Your task to perform on an android device: delete location history Image 0: 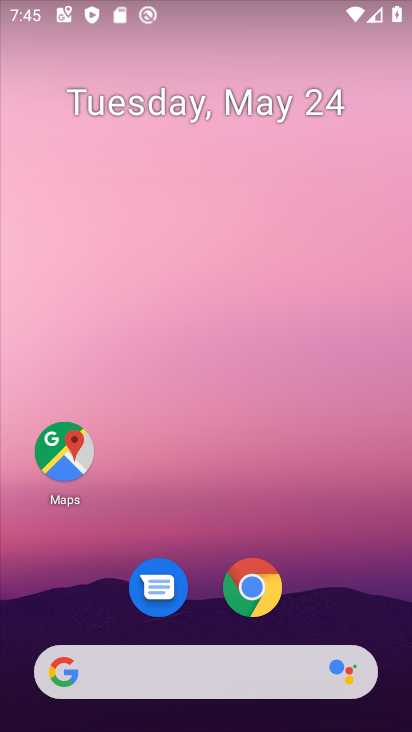
Step 0: drag from (215, 613) to (382, 5)
Your task to perform on an android device: delete location history Image 1: 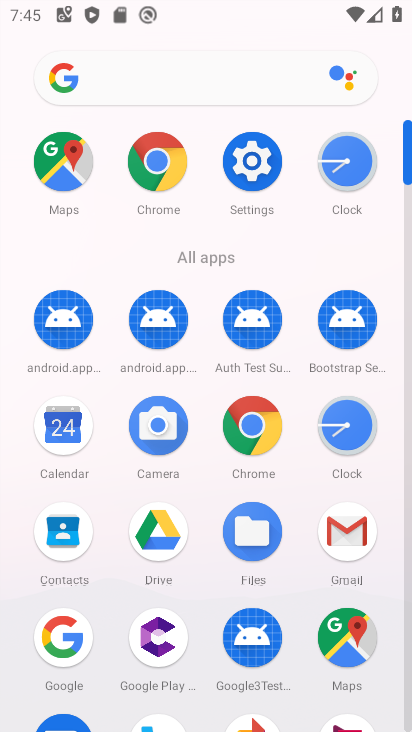
Step 1: click (352, 638)
Your task to perform on an android device: delete location history Image 2: 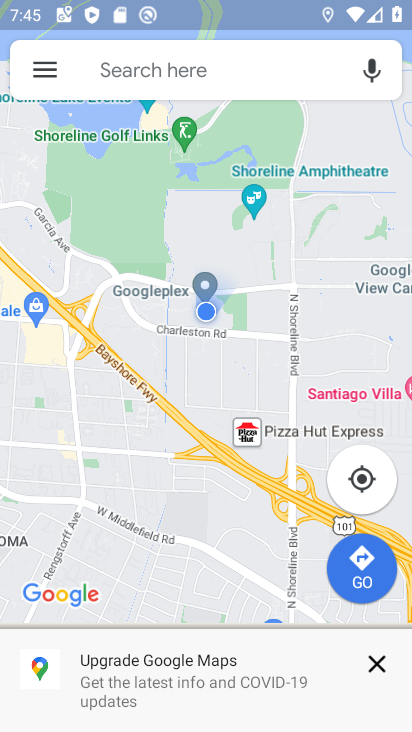
Step 2: click (50, 80)
Your task to perform on an android device: delete location history Image 3: 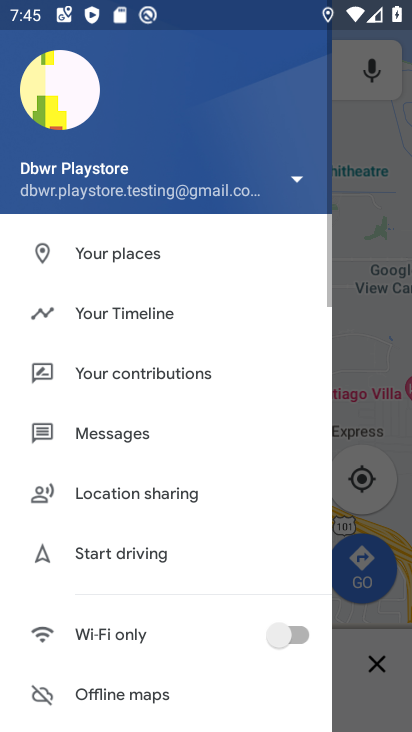
Step 3: click (94, 307)
Your task to perform on an android device: delete location history Image 4: 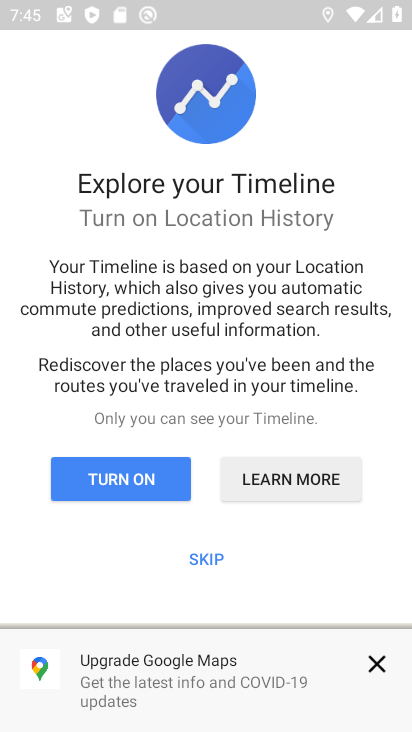
Step 4: click (185, 557)
Your task to perform on an android device: delete location history Image 5: 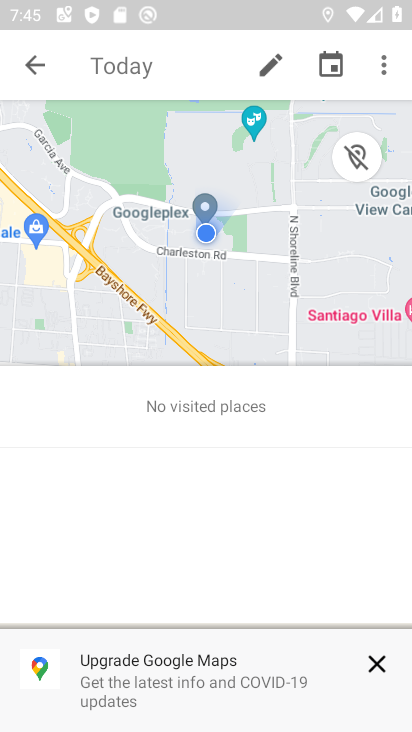
Step 5: click (368, 66)
Your task to perform on an android device: delete location history Image 6: 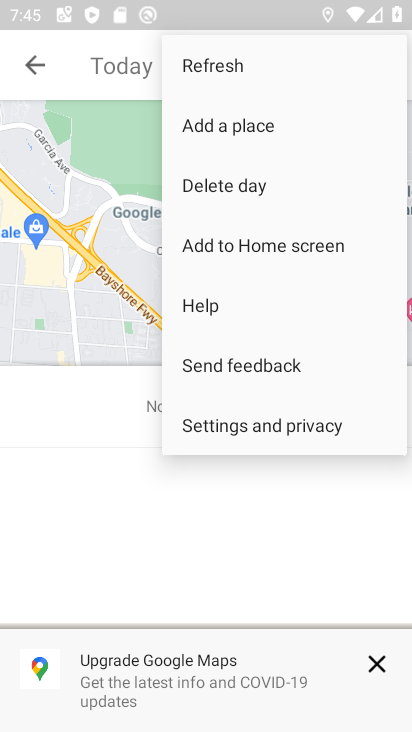
Step 6: click (231, 430)
Your task to perform on an android device: delete location history Image 7: 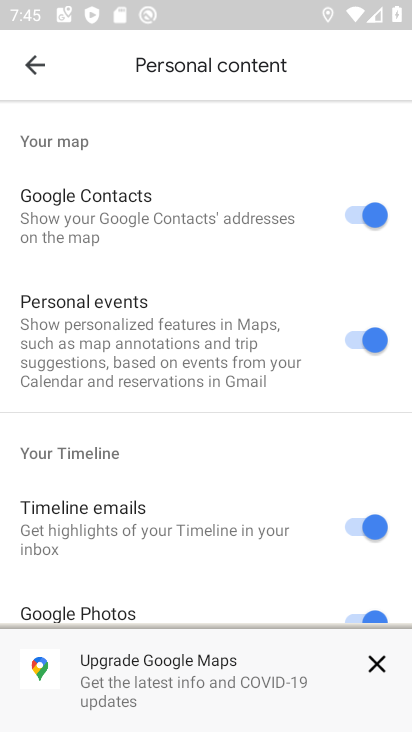
Step 7: drag from (232, 559) to (274, 104)
Your task to perform on an android device: delete location history Image 8: 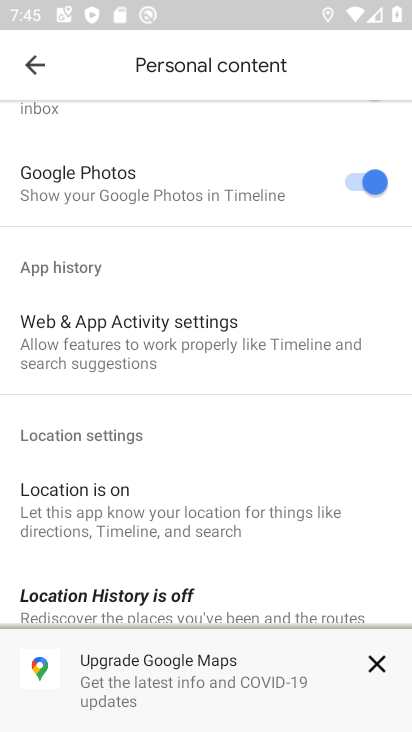
Step 8: drag from (219, 456) to (248, 33)
Your task to perform on an android device: delete location history Image 9: 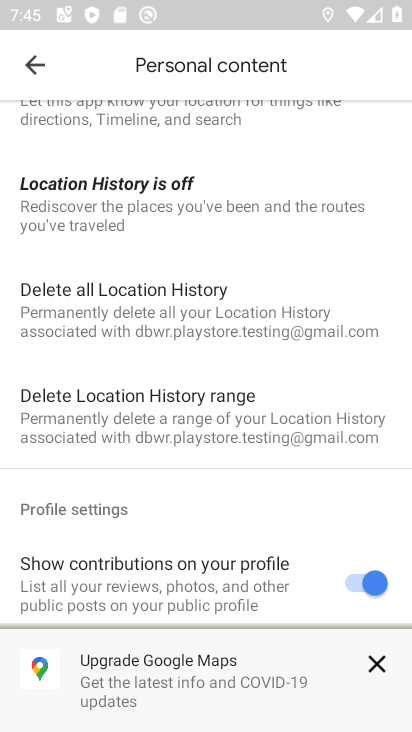
Step 9: click (199, 321)
Your task to perform on an android device: delete location history Image 10: 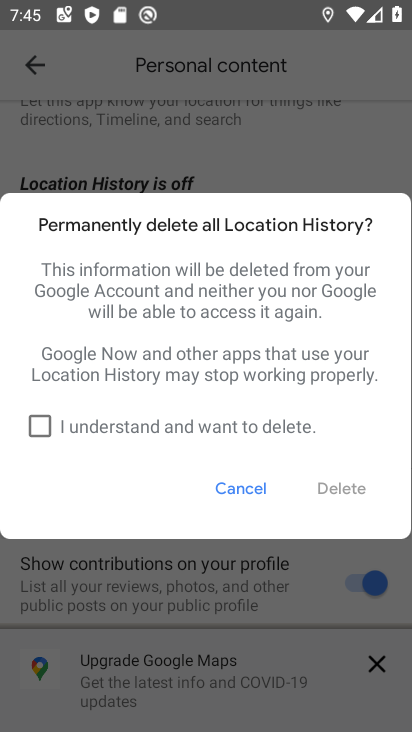
Step 10: click (112, 431)
Your task to perform on an android device: delete location history Image 11: 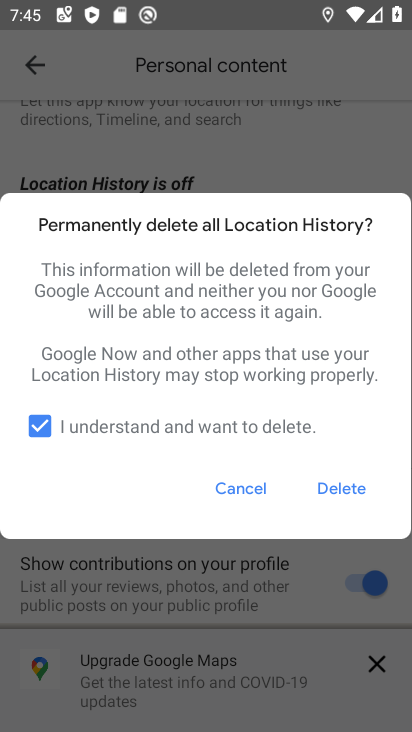
Step 11: click (343, 492)
Your task to perform on an android device: delete location history Image 12: 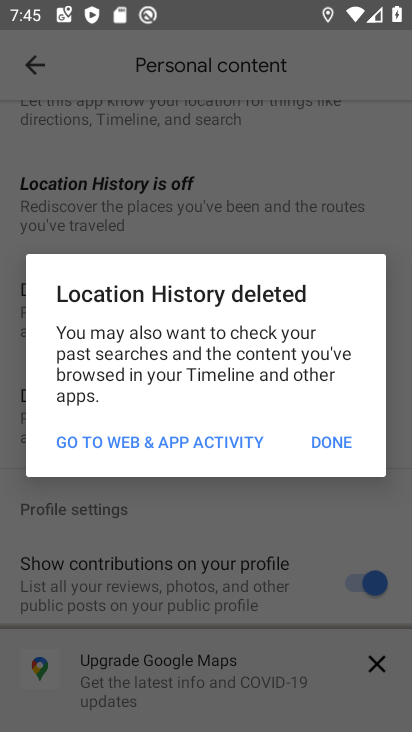
Step 12: click (321, 447)
Your task to perform on an android device: delete location history Image 13: 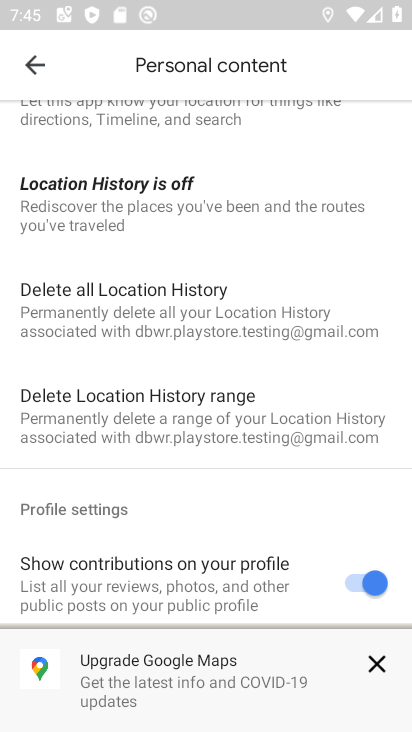
Step 13: task complete